Your task to perform on an android device: Open notification settings Image 0: 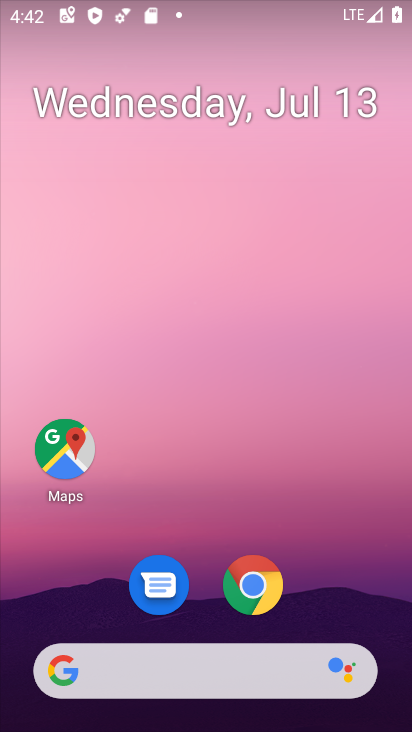
Step 0: drag from (341, 568) to (306, 190)
Your task to perform on an android device: Open notification settings Image 1: 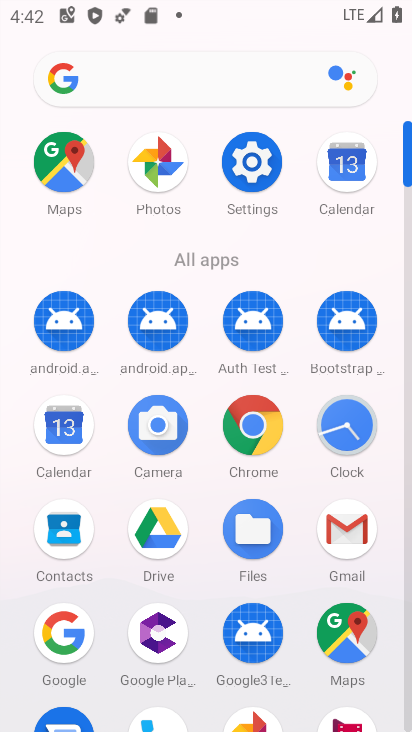
Step 1: click (257, 176)
Your task to perform on an android device: Open notification settings Image 2: 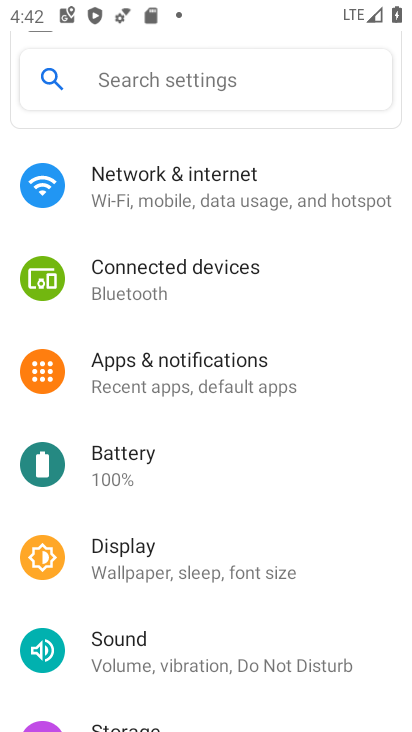
Step 2: click (204, 357)
Your task to perform on an android device: Open notification settings Image 3: 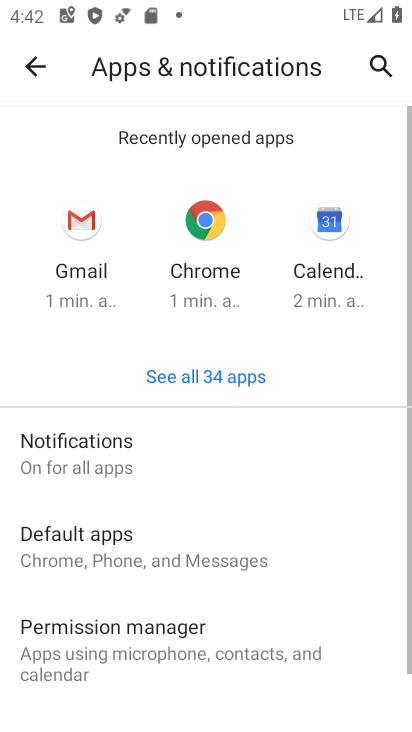
Step 3: click (107, 453)
Your task to perform on an android device: Open notification settings Image 4: 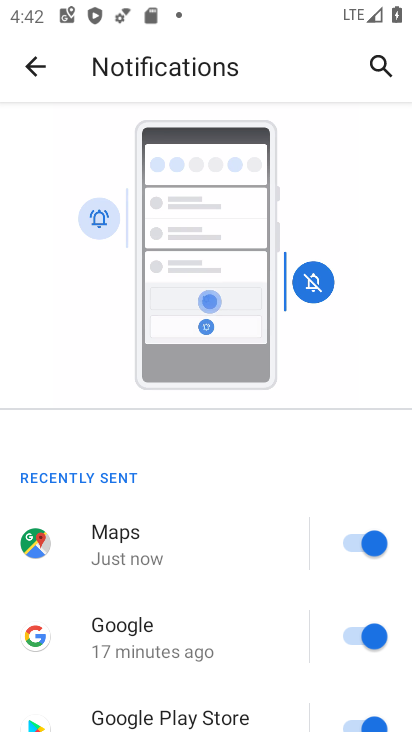
Step 4: task complete